Your task to perform on an android device: What's the weather? Image 0: 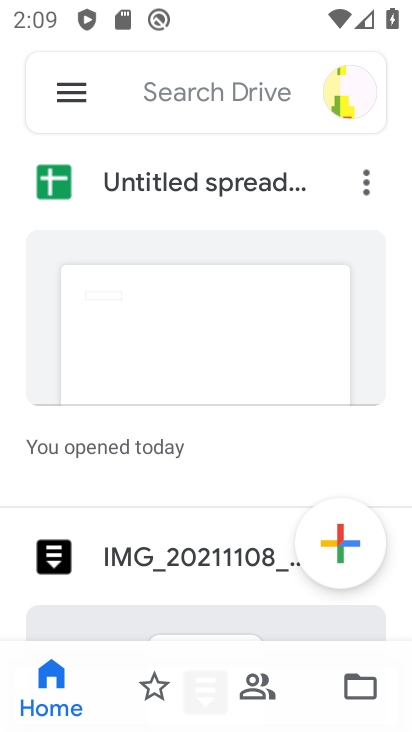
Step 0: press home button
Your task to perform on an android device: What's the weather? Image 1: 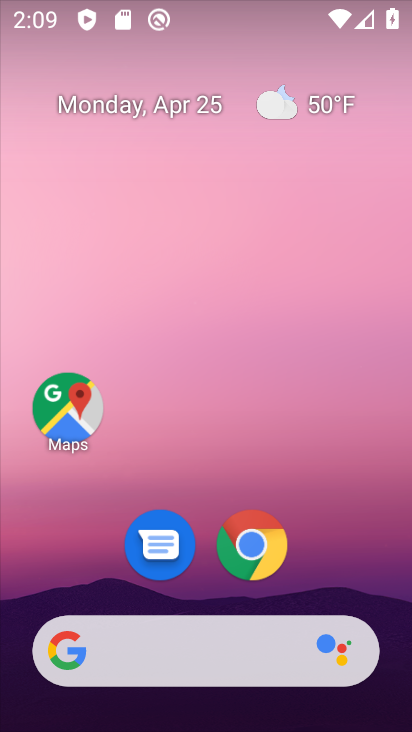
Step 1: click (297, 103)
Your task to perform on an android device: What's the weather? Image 2: 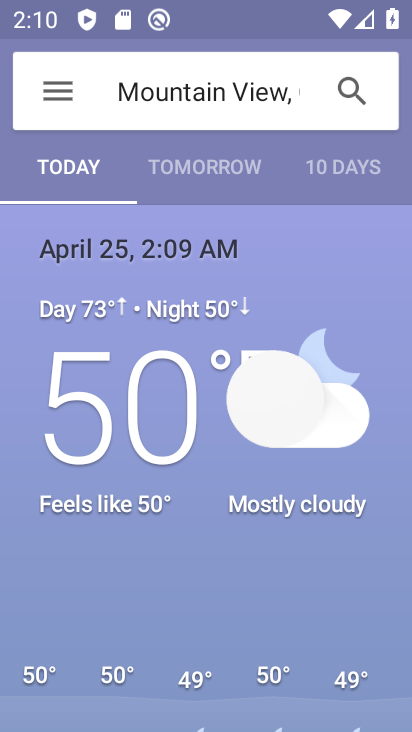
Step 2: task complete